Your task to perform on an android device: turn off airplane mode Image 0: 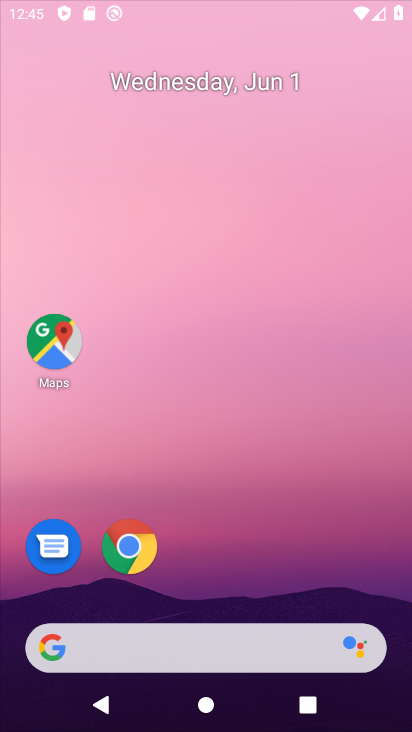
Step 0: press home button
Your task to perform on an android device: turn off airplane mode Image 1: 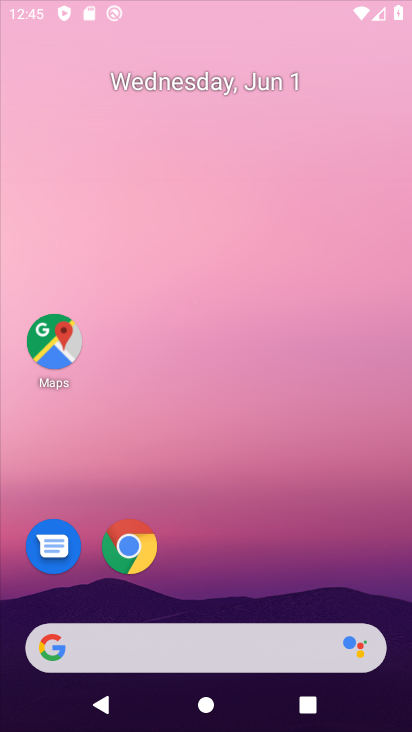
Step 1: press home button
Your task to perform on an android device: turn off airplane mode Image 2: 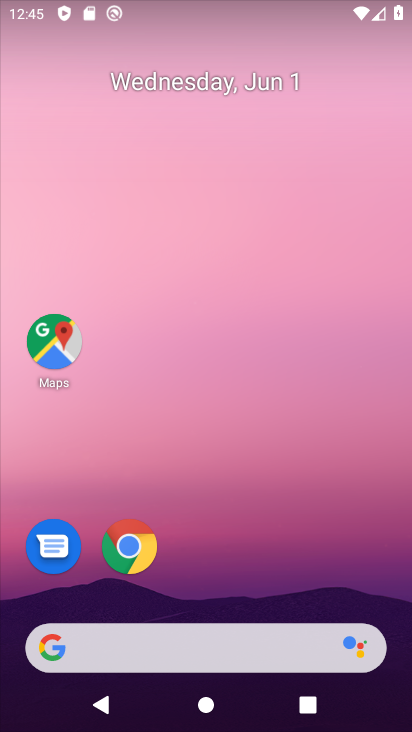
Step 2: drag from (278, 528) to (167, 180)
Your task to perform on an android device: turn off airplane mode Image 3: 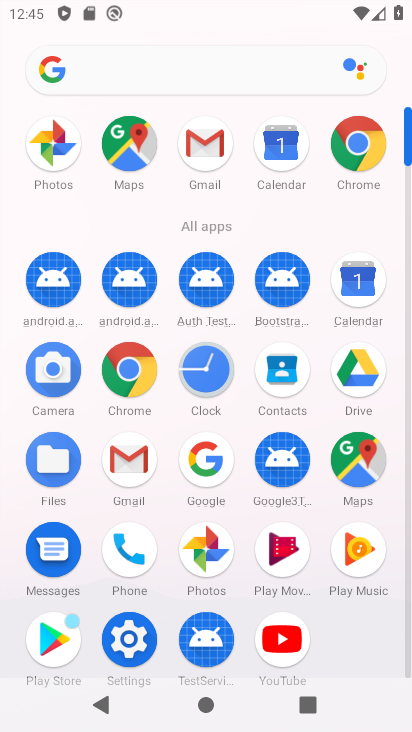
Step 3: click (124, 640)
Your task to perform on an android device: turn off airplane mode Image 4: 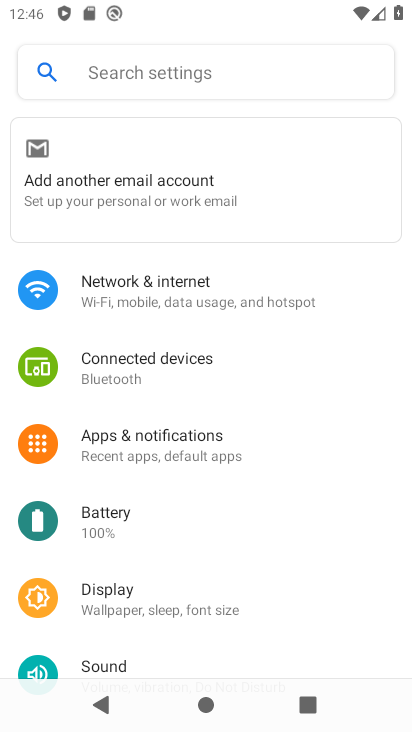
Step 4: click (248, 299)
Your task to perform on an android device: turn off airplane mode Image 5: 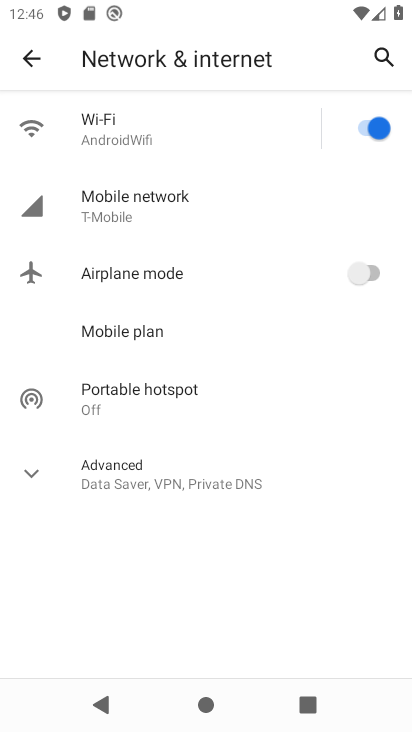
Step 5: task complete